Your task to perform on an android device: open wifi settings Image 0: 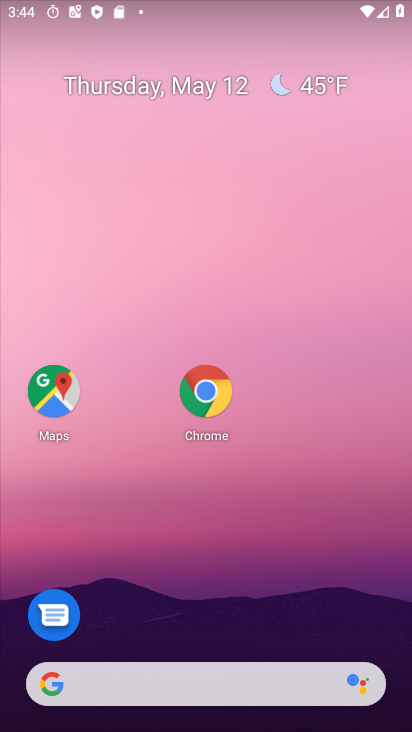
Step 0: drag from (245, 599) to (269, 68)
Your task to perform on an android device: open wifi settings Image 1: 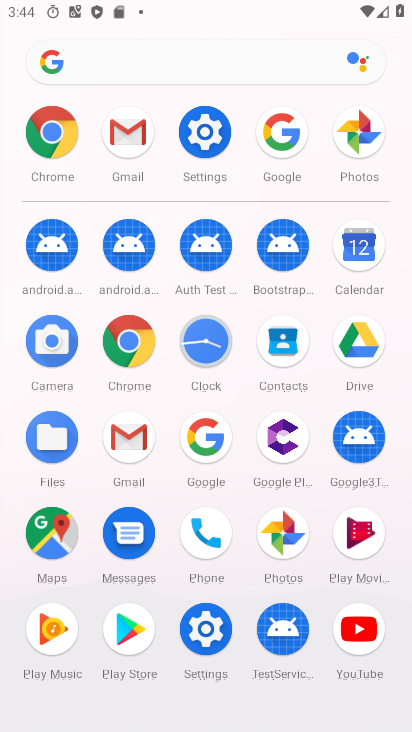
Step 1: click (213, 132)
Your task to perform on an android device: open wifi settings Image 2: 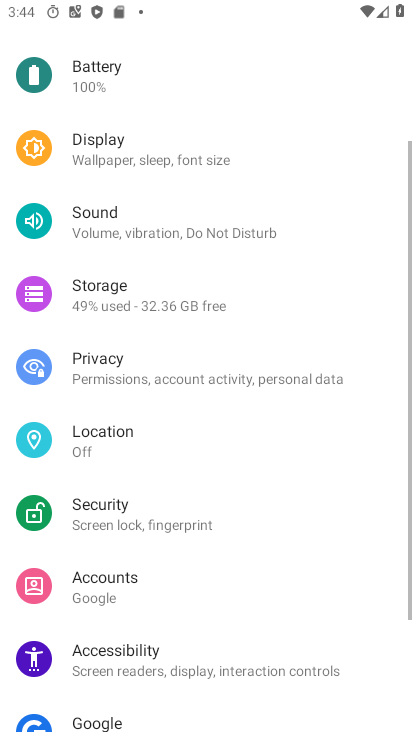
Step 2: drag from (213, 132) to (309, 686)
Your task to perform on an android device: open wifi settings Image 3: 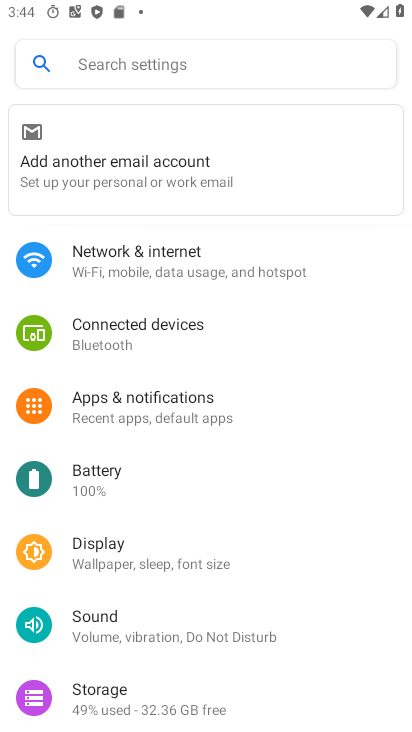
Step 3: click (152, 261)
Your task to perform on an android device: open wifi settings Image 4: 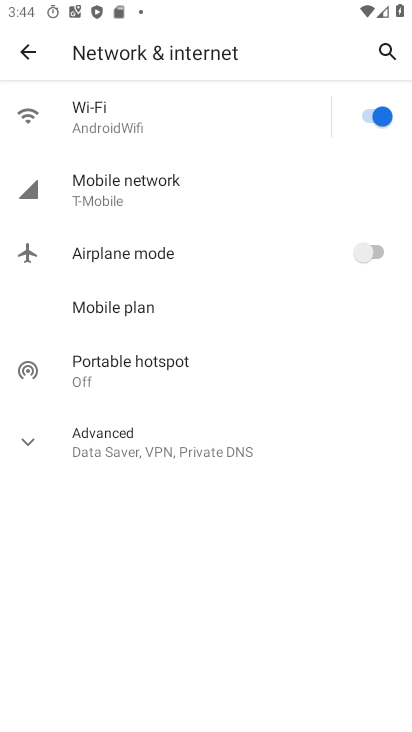
Step 4: click (168, 113)
Your task to perform on an android device: open wifi settings Image 5: 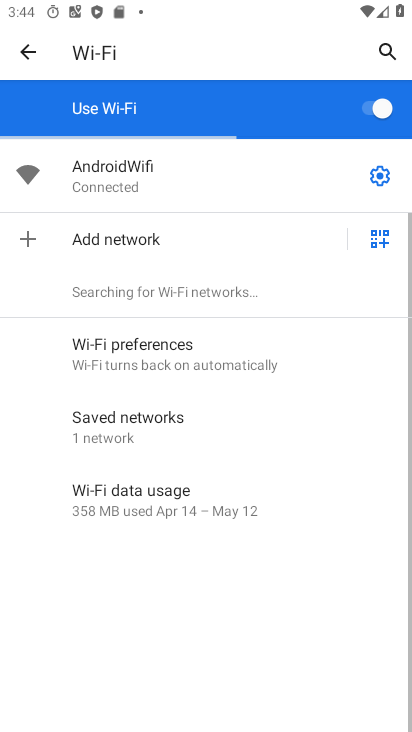
Step 5: click (313, 171)
Your task to perform on an android device: open wifi settings Image 6: 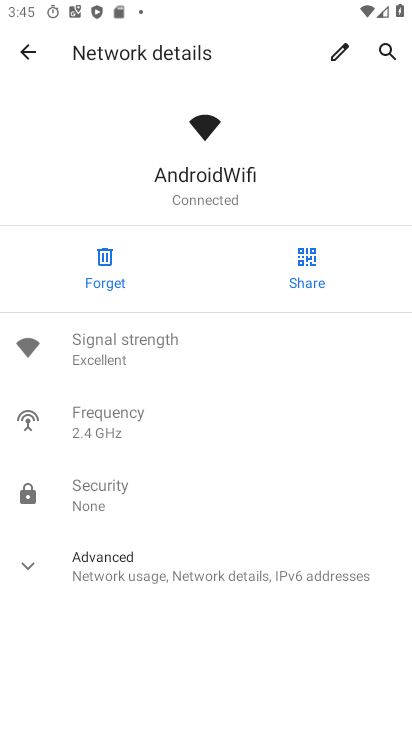
Step 6: task complete